Your task to perform on an android device: turn off wifi Image 0: 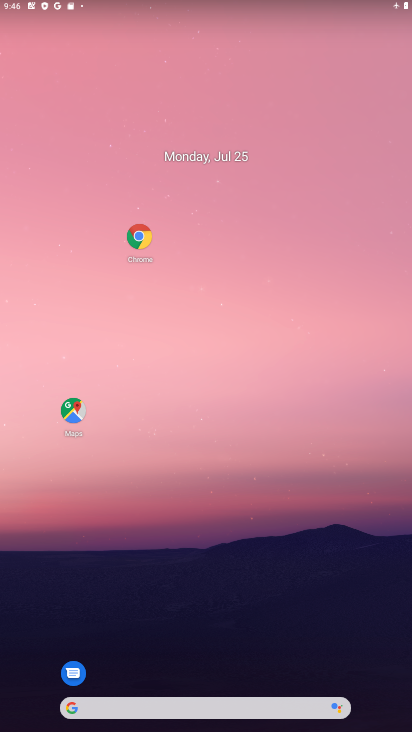
Step 0: drag from (272, 666) to (259, 55)
Your task to perform on an android device: turn off wifi Image 1: 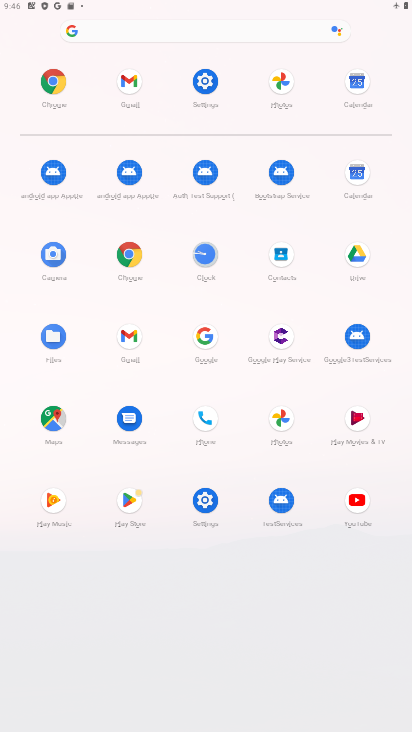
Step 1: click (204, 78)
Your task to perform on an android device: turn off wifi Image 2: 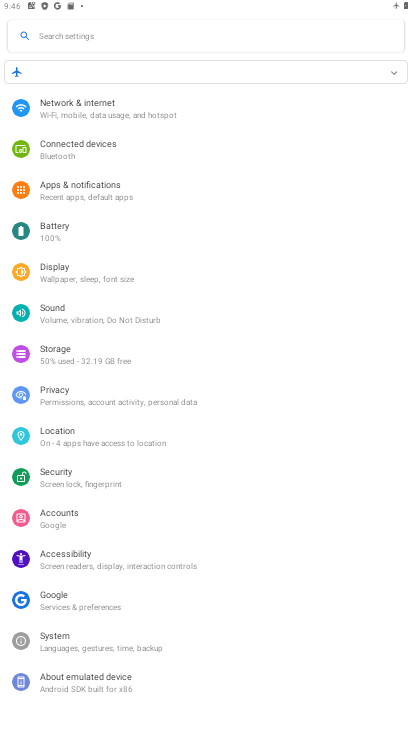
Step 2: click (195, 122)
Your task to perform on an android device: turn off wifi Image 3: 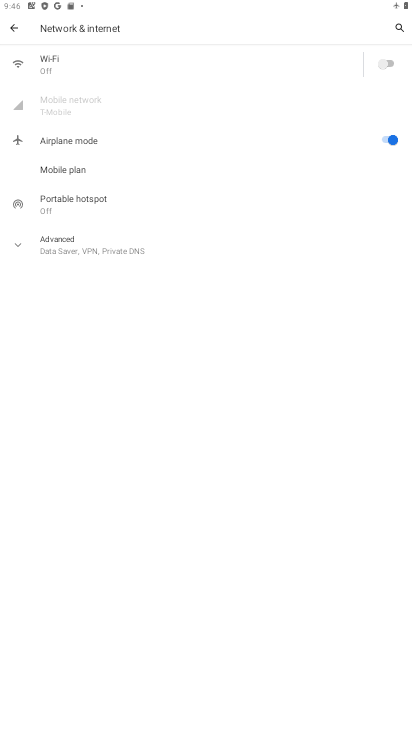
Step 3: click (377, 68)
Your task to perform on an android device: turn off wifi Image 4: 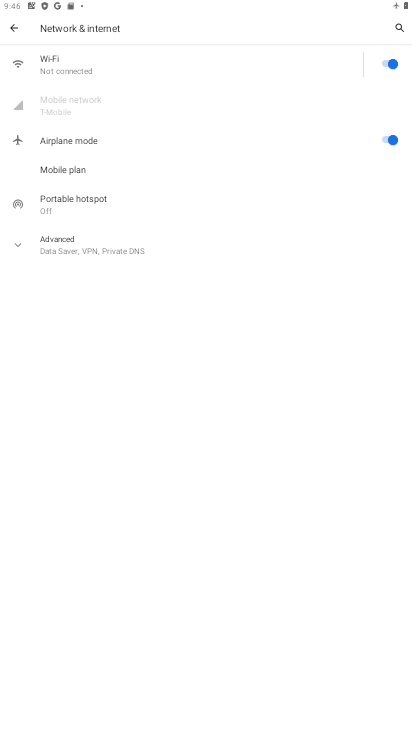
Step 4: task complete